Your task to perform on an android device: change notification settings in the gmail app Image 0: 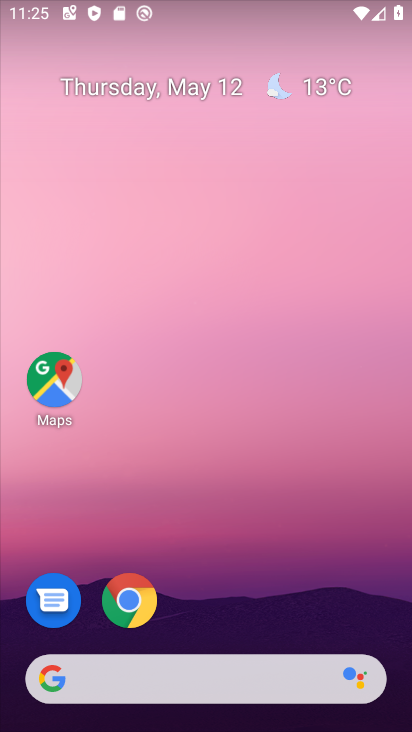
Step 0: drag from (366, 601) to (319, 157)
Your task to perform on an android device: change notification settings in the gmail app Image 1: 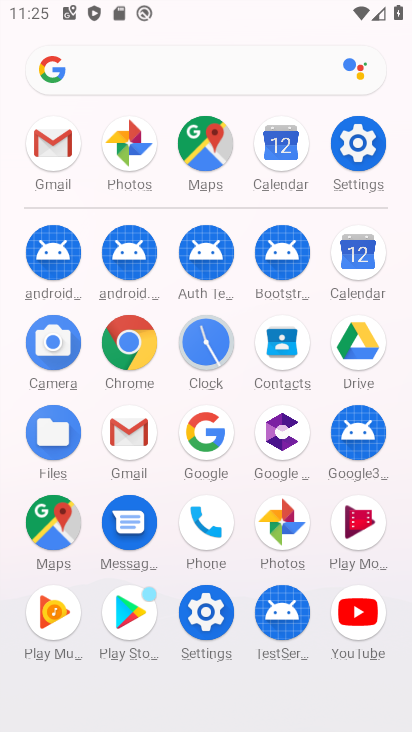
Step 1: click (124, 431)
Your task to perform on an android device: change notification settings in the gmail app Image 2: 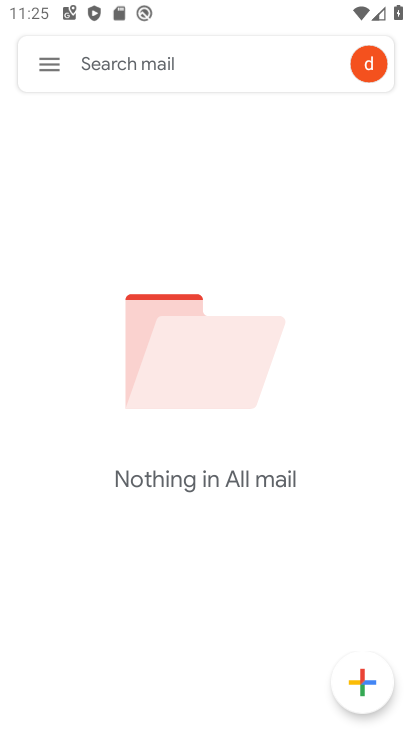
Step 2: click (51, 63)
Your task to perform on an android device: change notification settings in the gmail app Image 3: 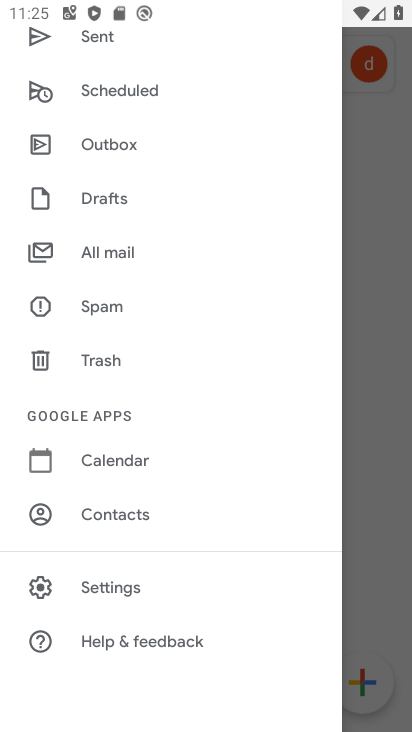
Step 3: click (108, 579)
Your task to perform on an android device: change notification settings in the gmail app Image 4: 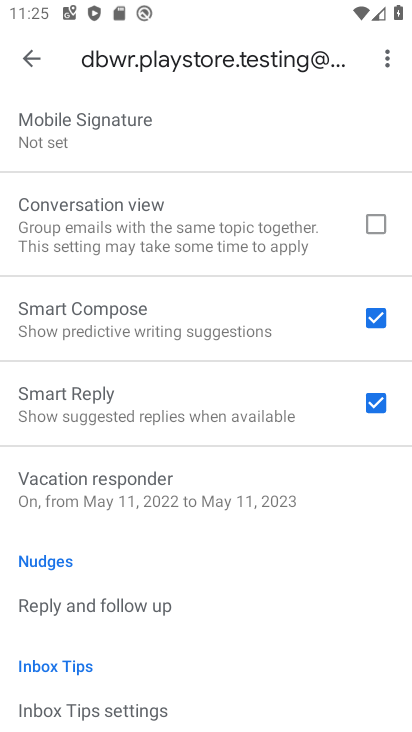
Step 4: drag from (276, 243) to (278, 504)
Your task to perform on an android device: change notification settings in the gmail app Image 5: 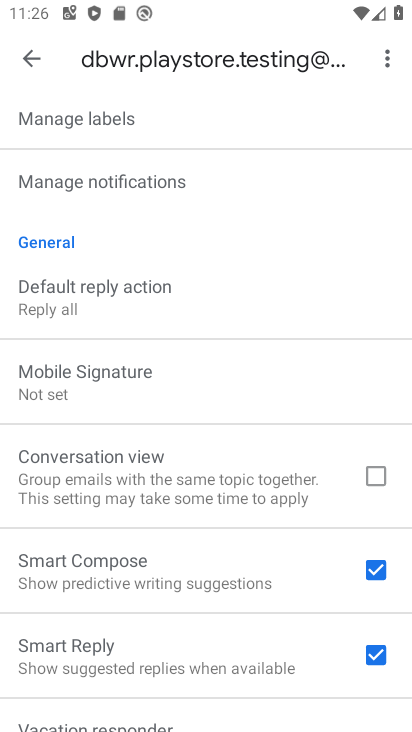
Step 5: drag from (270, 217) to (255, 481)
Your task to perform on an android device: change notification settings in the gmail app Image 6: 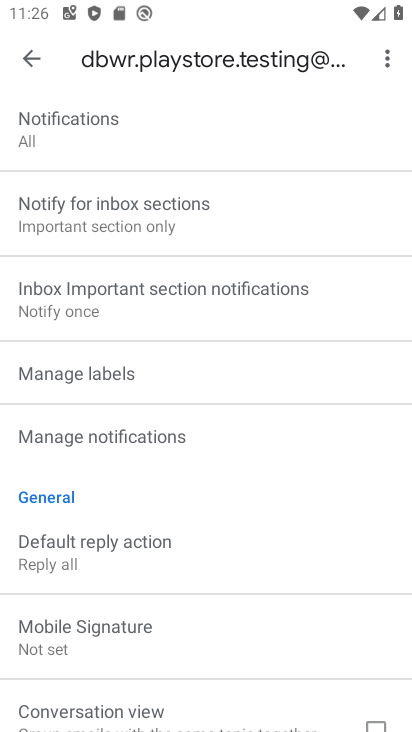
Step 6: drag from (300, 287) to (264, 629)
Your task to perform on an android device: change notification settings in the gmail app Image 7: 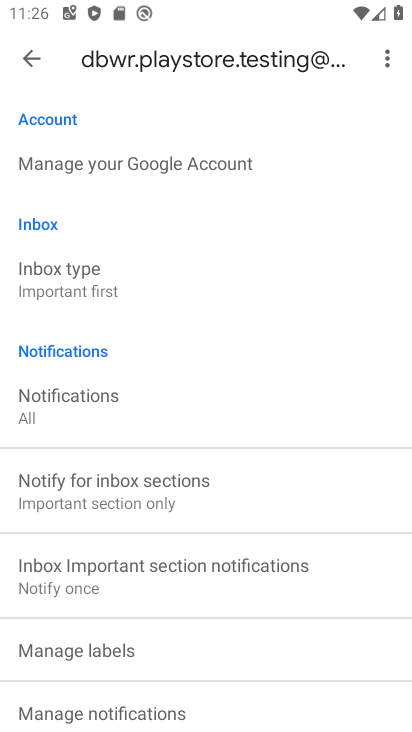
Step 7: drag from (222, 626) to (223, 263)
Your task to perform on an android device: change notification settings in the gmail app Image 8: 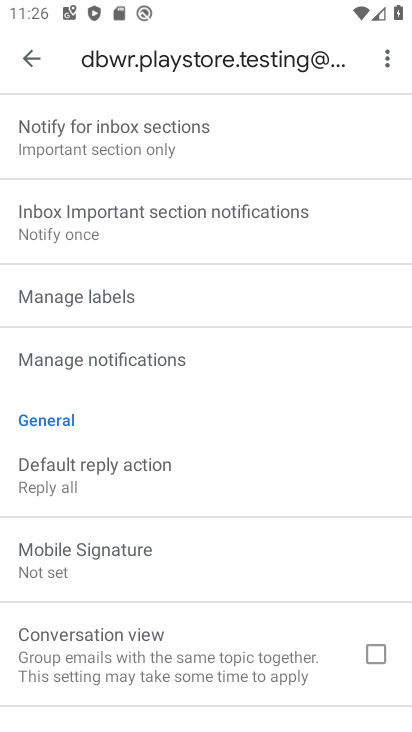
Step 8: click (103, 365)
Your task to perform on an android device: change notification settings in the gmail app Image 9: 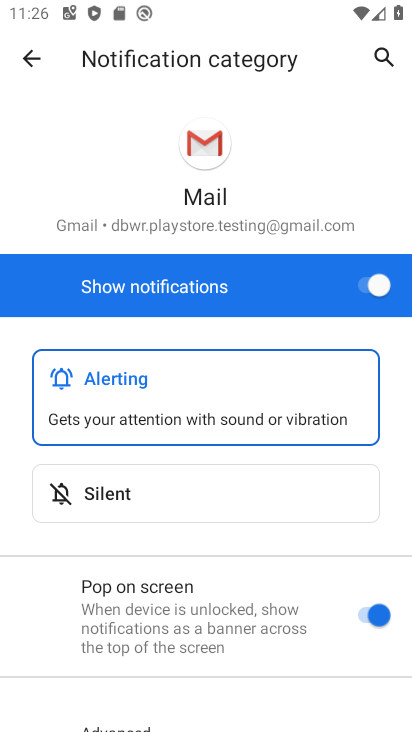
Step 9: click (360, 281)
Your task to perform on an android device: change notification settings in the gmail app Image 10: 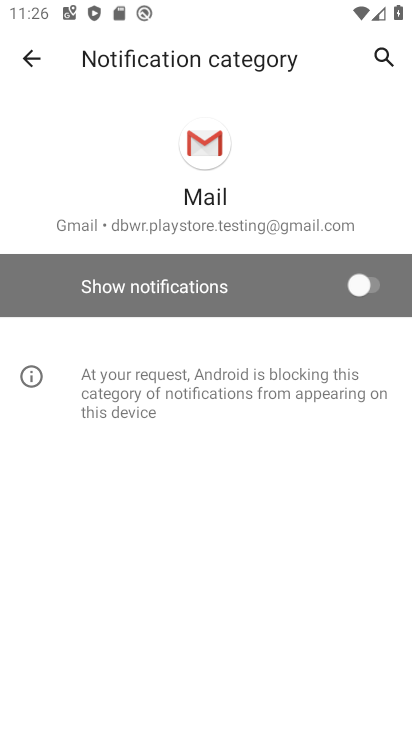
Step 10: task complete